Your task to perform on an android device: toggle airplane mode Image 0: 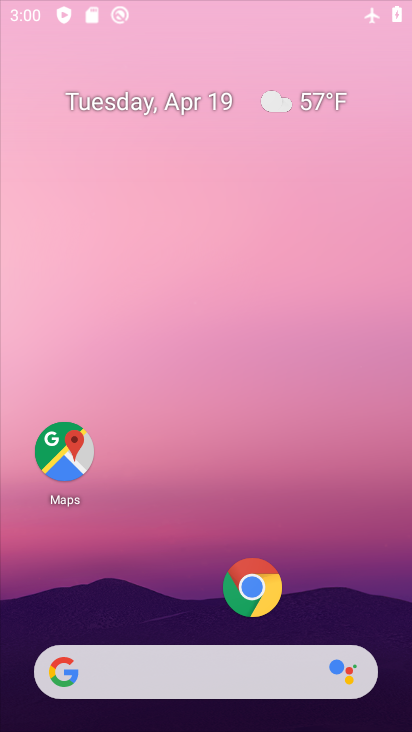
Step 0: click (262, 45)
Your task to perform on an android device: toggle airplane mode Image 1: 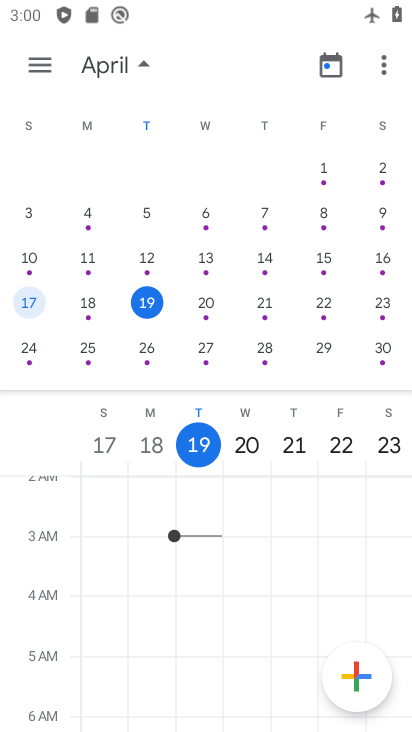
Step 1: press home button
Your task to perform on an android device: toggle airplane mode Image 2: 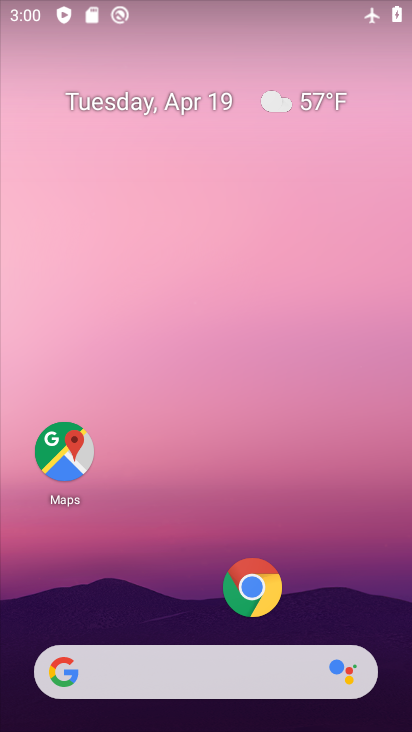
Step 2: drag from (183, 462) to (235, 64)
Your task to perform on an android device: toggle airplane mode Image 3: 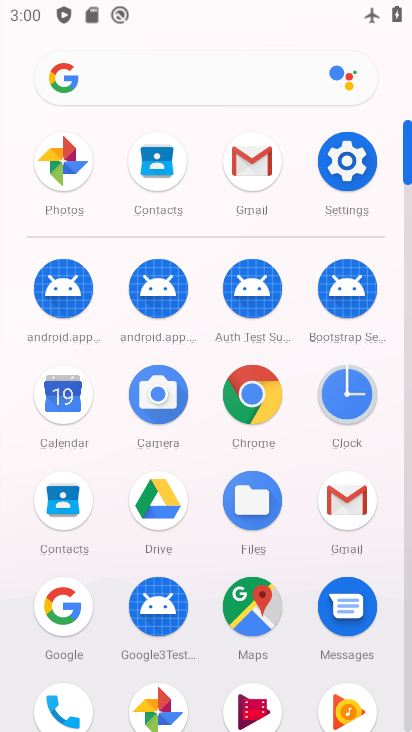
Step 3: click (355, 165)
Your task to perform on an android device: toggle airplane mode Image 4: 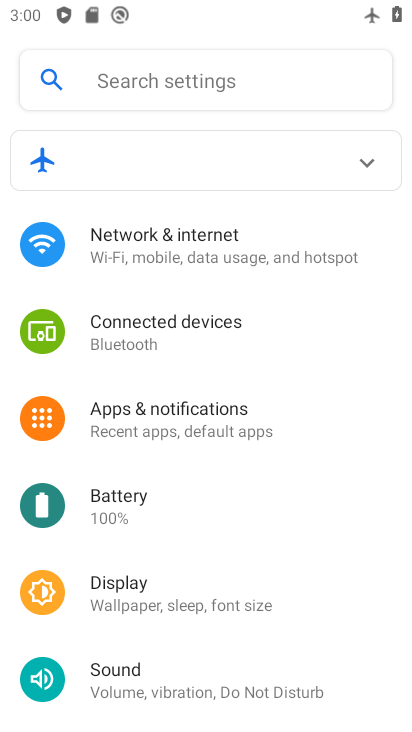
Step 4: click (196, 265)
Your task to perform on an android device: toggle airplane mode Image 5: 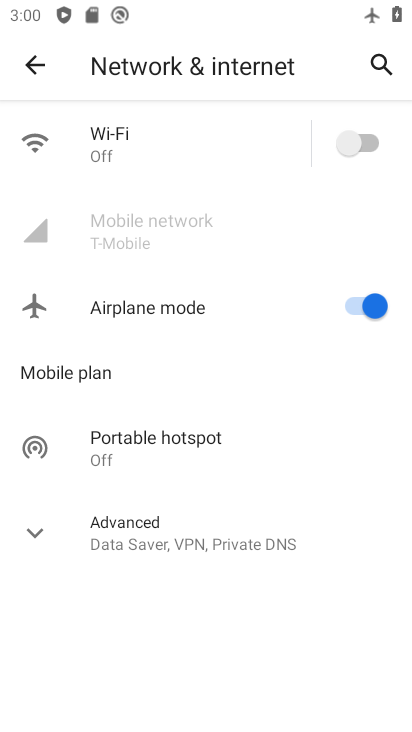
Step 5: click (345, 307)
Your task to perform on an android device: toggle airplane mode Image 6: 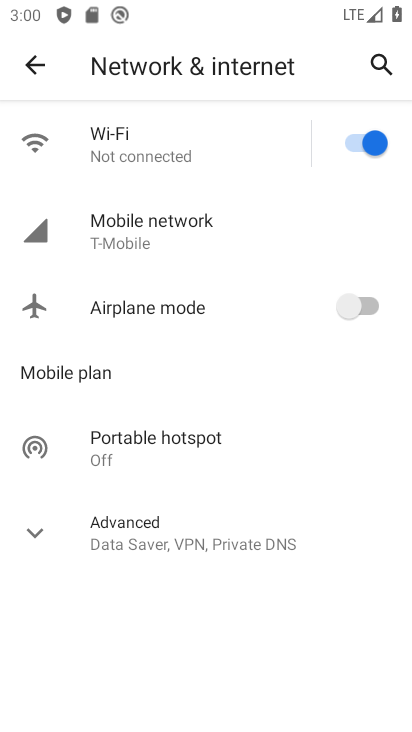
Step 6: task complete